Your task to perform on an android device: Open Reddit.com Image 0: 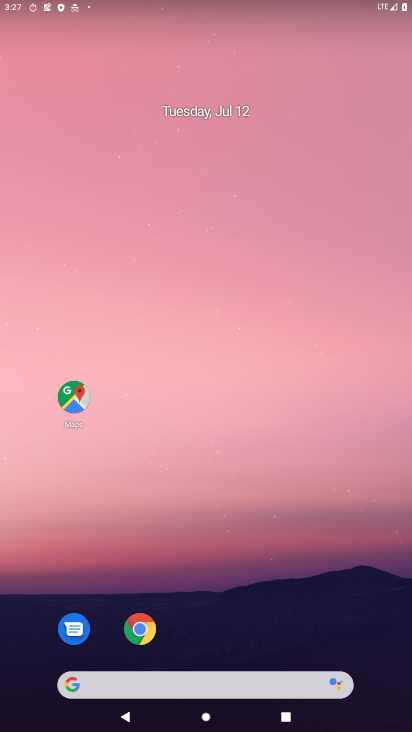
Step 0: drag from (233, 594) to (294, 45)
Your task to perform on an android device: Open Reddit.com Image 1: 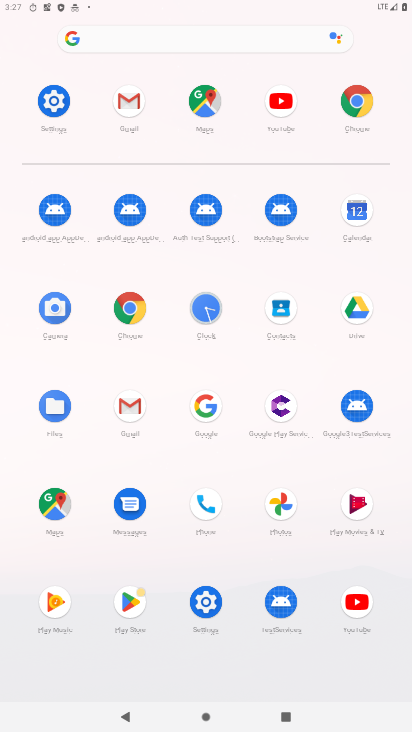
Step 1: click (143, 299)
Your task to perform on an android device: Open Reddit.com Image 2: 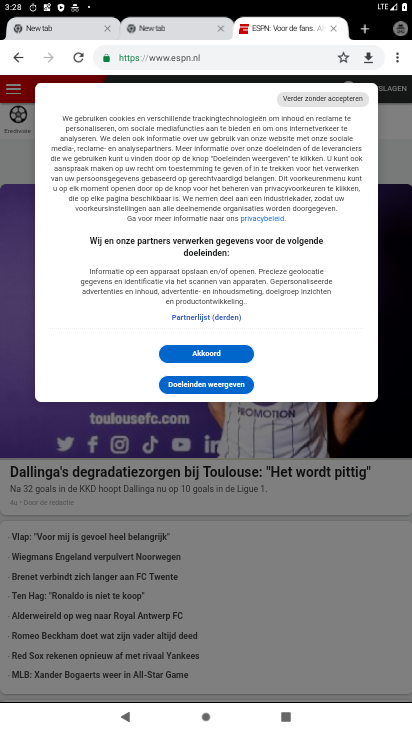
Step 2: click (171, 58)
Your task to perform on an android device: Open Reddit.com Image 3: 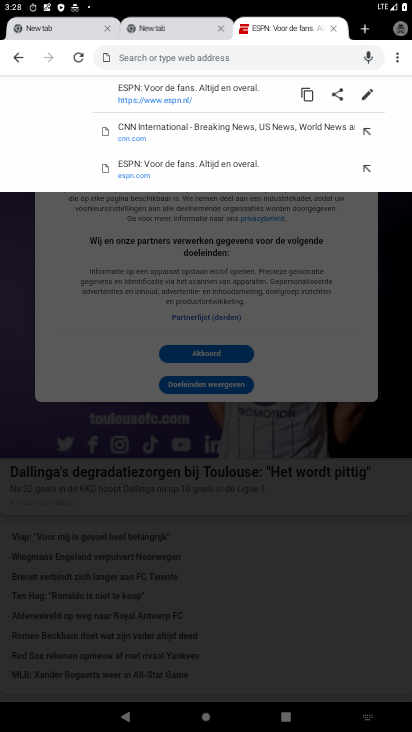
Step 3: type "Reddit.com"
Your task to perform on an android device: Open Reddit.com Image 4: 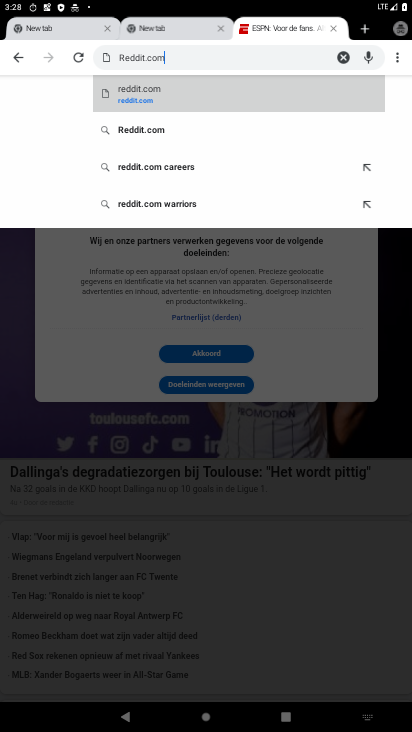
Step 4: click (147, 96)
Your task to perform on an android device: Open Reddit.com Image 5: 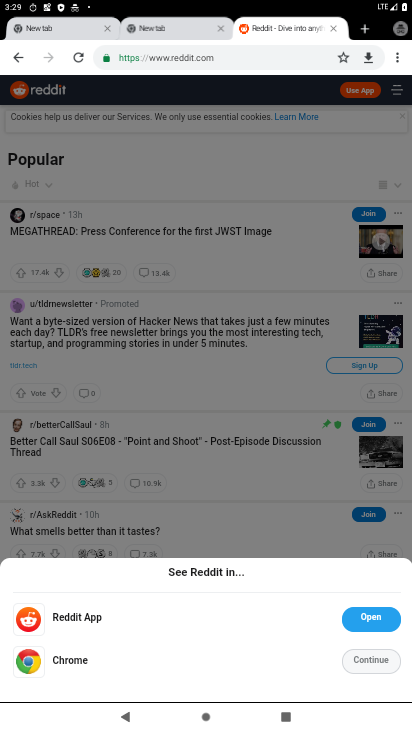
Step 5: task complete